Your task to perform on an android device: Open calendar and show me the fourth week of next month Image 0: 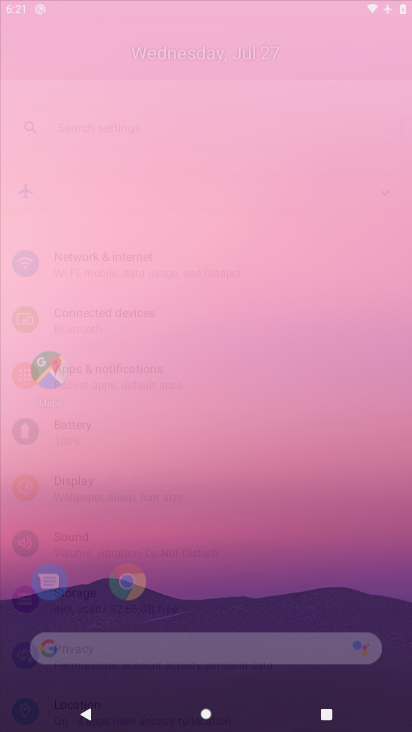
Step 0: press home button
Your task to perform on an android device: Open calendar and show me the fourth week of next month Image 1: 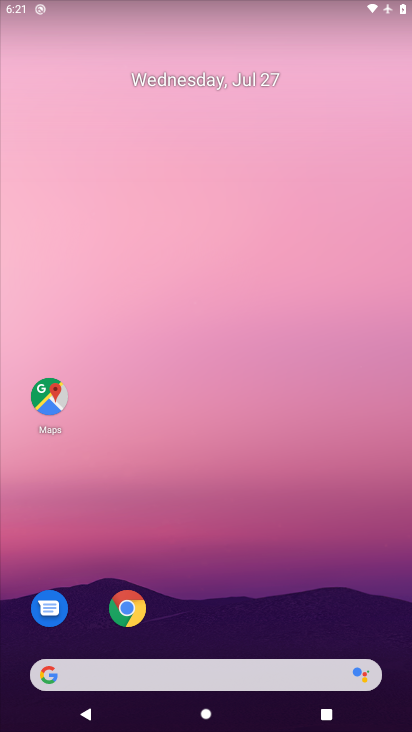
Step 1: drag from (228, 649) to (227, 215)
Your task to perform on an android device: Open calendar and show me the fourth week of next month Image 2: 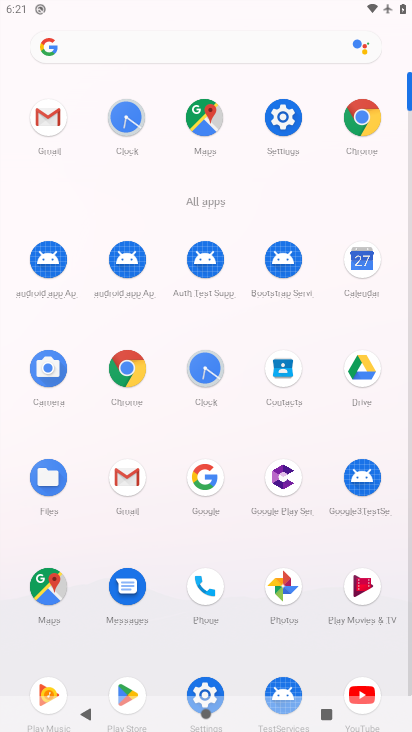
Step 2: click (366, 253)
Your task to perform on an android device: Open calendar and show me the fourth week of next month Image 3: 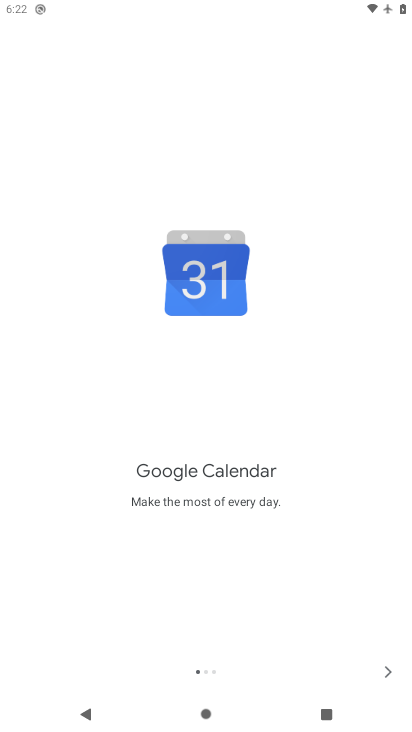
Step 3: click (387, 673)
Your task to perform on an android device: Open calendar and show me the fourth week of next month Image 4: 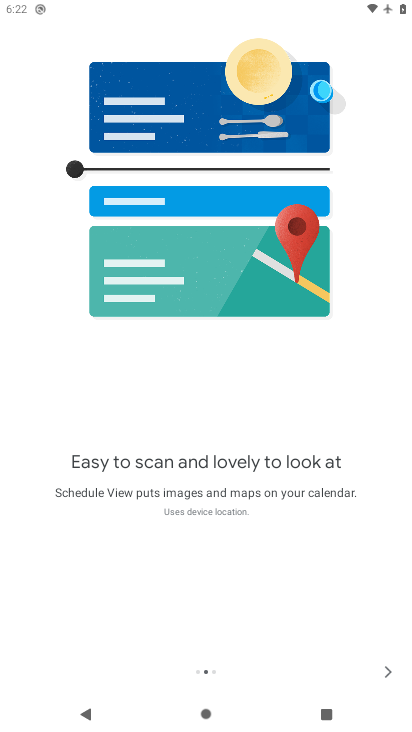
Step 4: click (387, 673)
Your task to perform on an android device: Open calendar and show me the fourth week of next month Image 5: 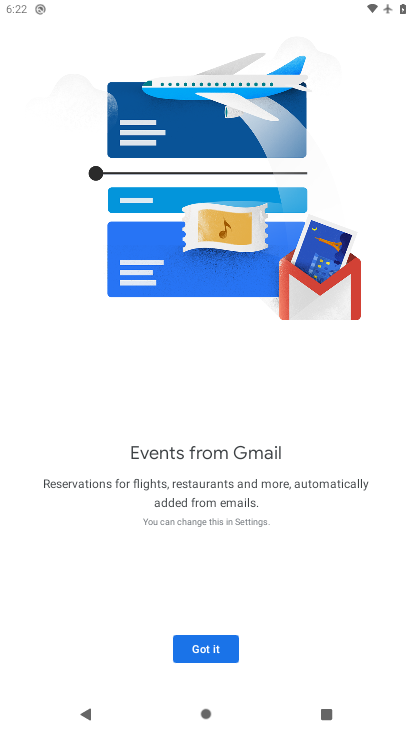
Step 5: click (196, 653)
Your task to perform on an android device: Open calendar and show me the fourth week of next month Image 6: 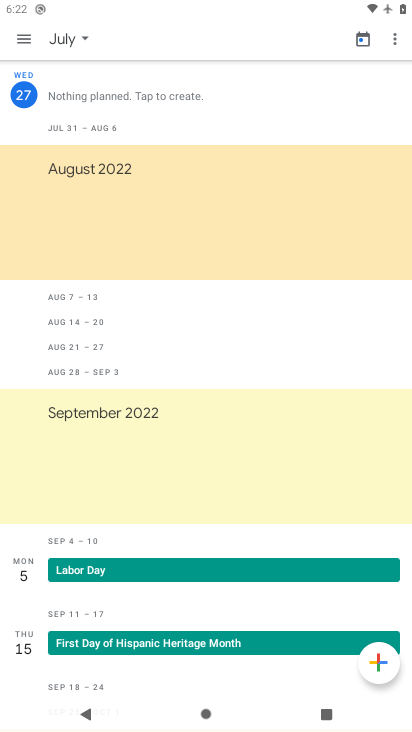
Step 6: click (77, 34)
Your task to perform on an android device: Open calendar and show me the fourth week of next month Image 7: 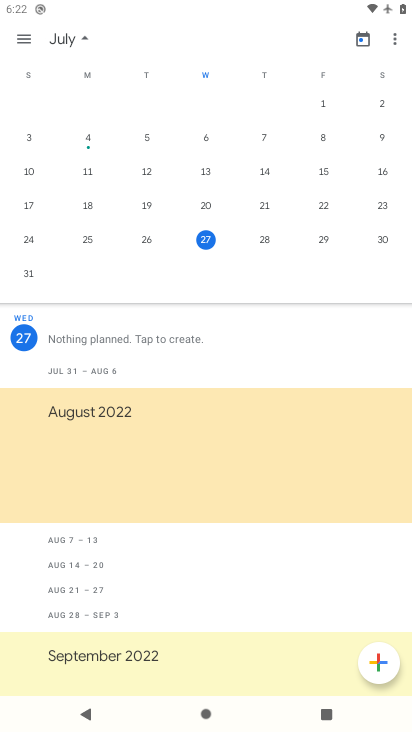
Step 7: drag from (246, 193) to (45, 190)
Your task to perform on an android device: Open calendar and show me the fourth week of next month Image 8: 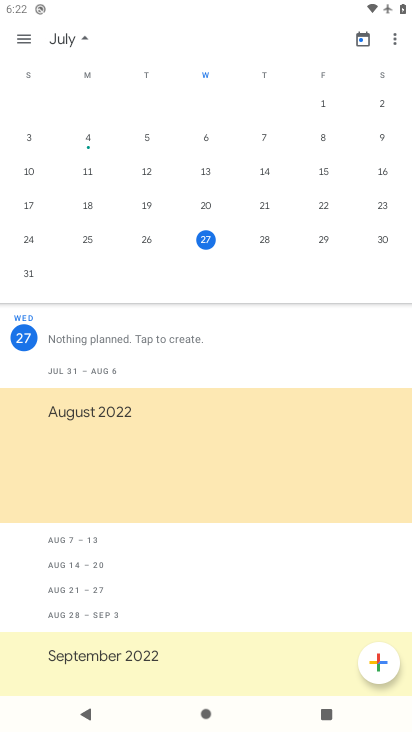
Step 8: drag from (176, 182) to (16, 228)
Your task to perform on an android device: Open calendar and show me the fourth week of next month Image 9: 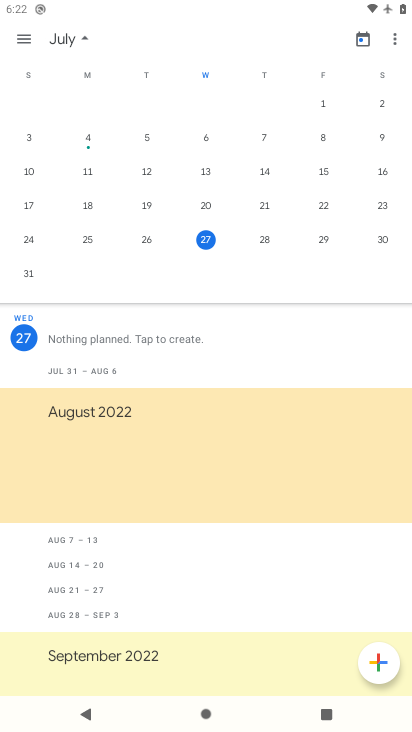
Step 9: drag from (289, 220) to (5, 223)
Your task to perform on an android device: Open calendar and show me the fourth week of next month Image 10: 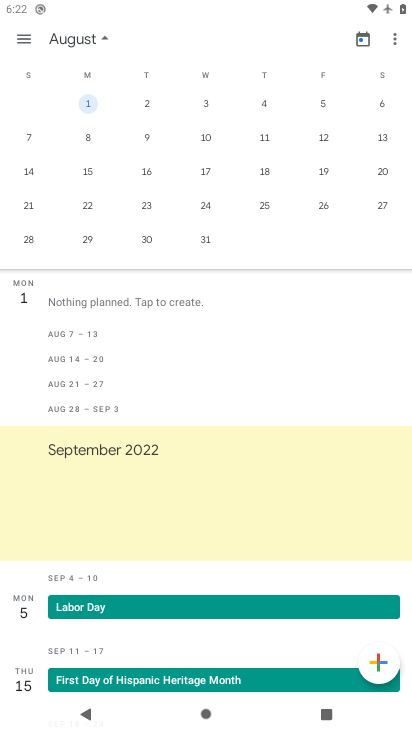
Step 10: click (84, 211)
Your task to perform on an android device: Open calendar and show me the fourth week of next month Image 11: 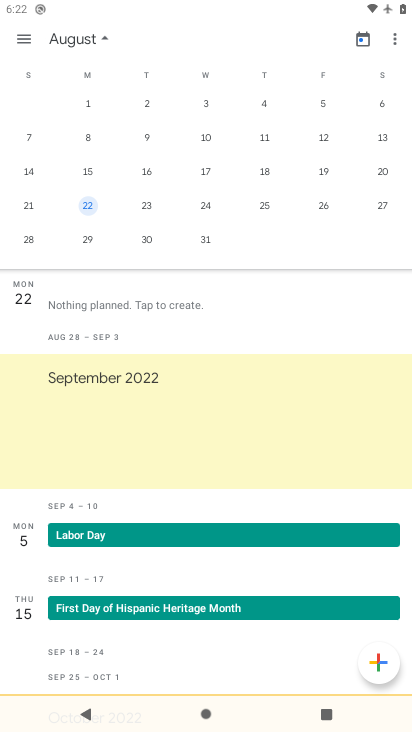
Step 11: click (150, 201)
Your task to perform on an android device: Open calendar and show me the fourth week of next month Image 12: 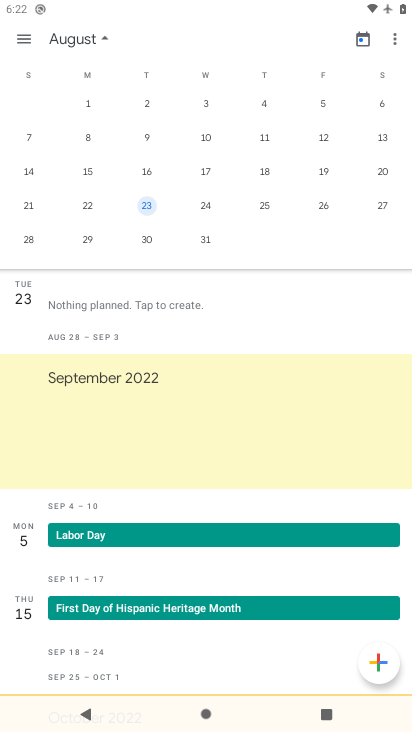
Step 12: click (201, 208)
Your task to perform on an android device: Open calendar and show me the fourth week of next month Image 13: 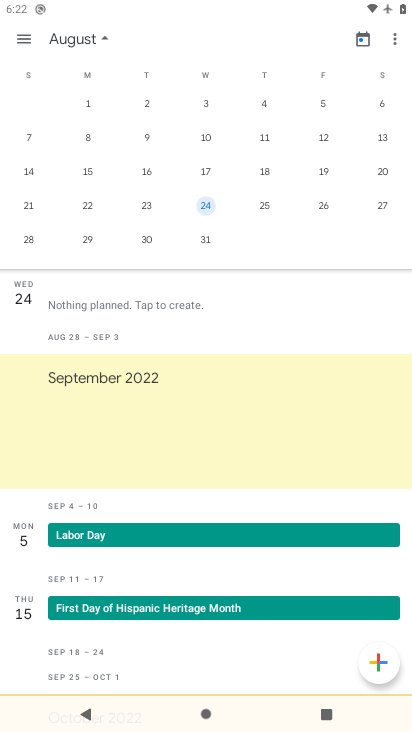
Step 13: click (262, 206)
Your task to perform on an android device: Open calendar and show me the fourth week of next month Image 14: 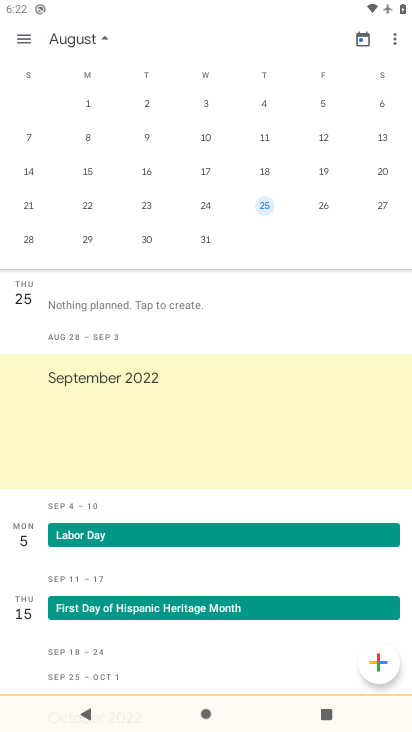
Step 14: click (330, 204)
Your task to perform on an android device: Open calendar and show me the fourth week of next month Image 15: 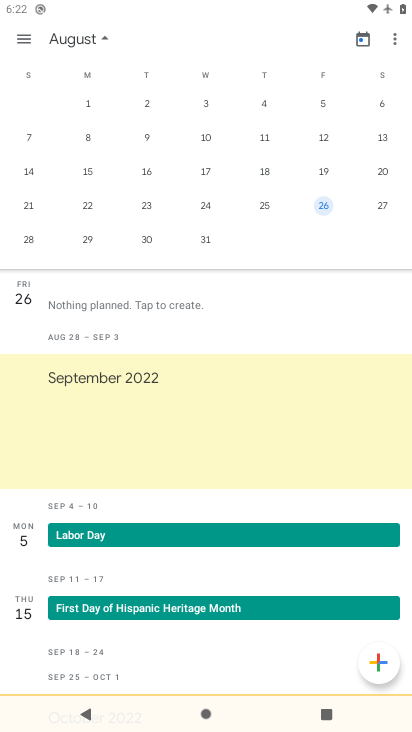
Step 15: click (387, 206)
Your task to perform on an android device: Open calendar and show me the fourth week of next month Image 16: 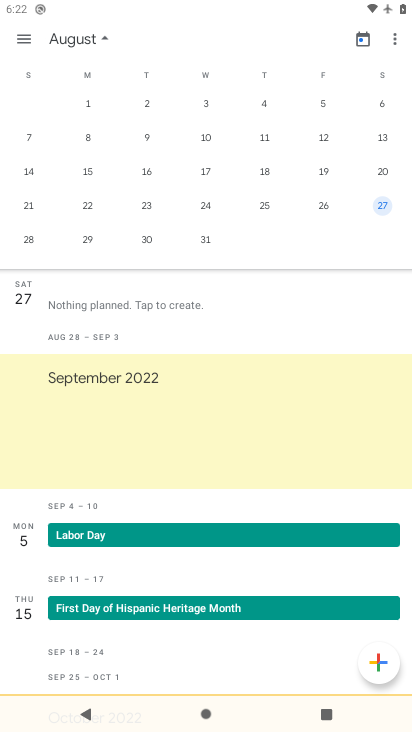
Step 16: click (31, 240)
Your task to perform on an android device: Open calendar and show me the fourth week of next month Image 17: 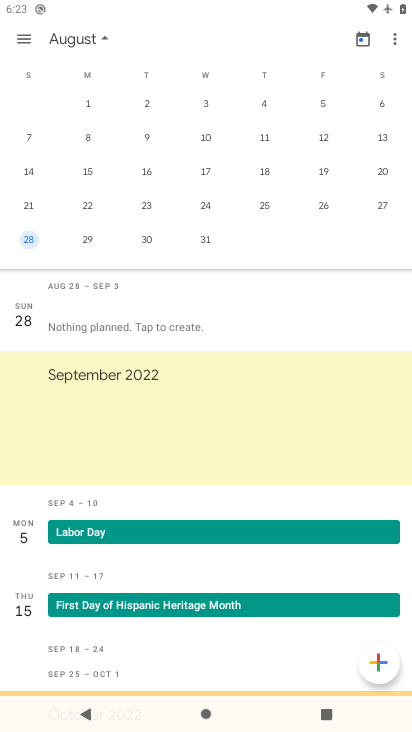
Step 17: task complete